Your task to perform on an android device: Search for Italian restaurants on Maps Image 0: 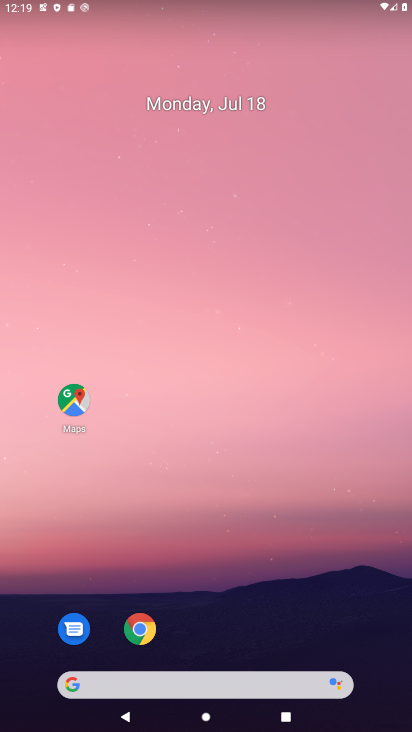
Step 0: drag from (221, 654) to (232, 77)
Your task to perform on an android device: Search for Italian restaurants on Maps Image 1: 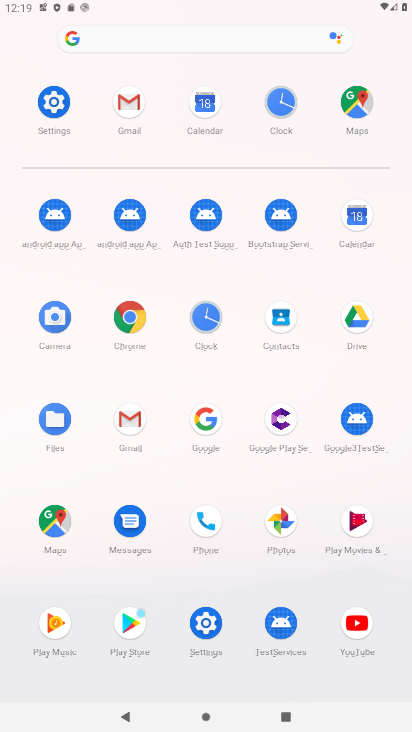
Step 1: click (55, 518)
Your task to perform on an android device: Search for Italian restaurants on Maps Image 2: 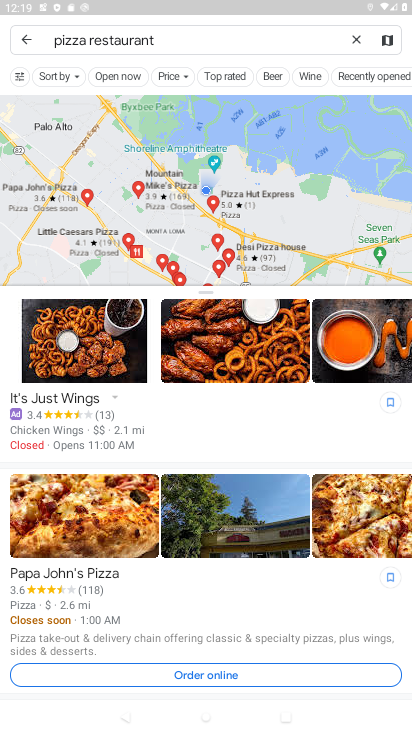
Step 2: click (356, 40)
Your task to perform on an android device: Search for Italian restaurants on Maps Image 3: 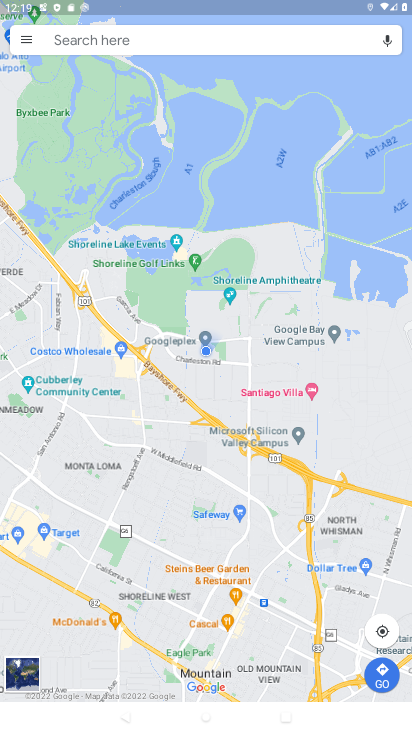
Step 3: type "italian restaurant"
Your task to perform on an android device: Search for Italian restaurants on Maps Image 4: 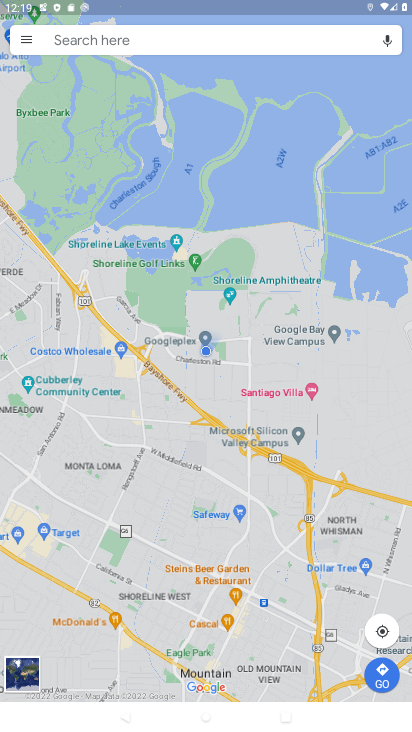
Step 4: click (72, 42)
Your task to perform on an android device: Search for Italian restaurants on Maps Image 5: 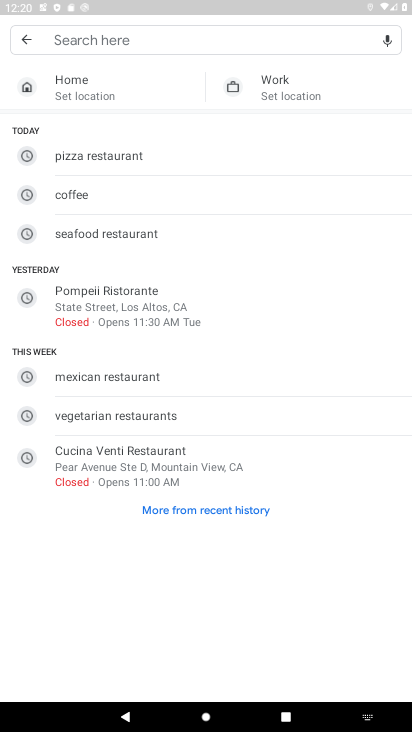
Step 5: type "italian restaurant"
Your task to perform on an android device: Search for Italian restaurants on Maps Image 6: 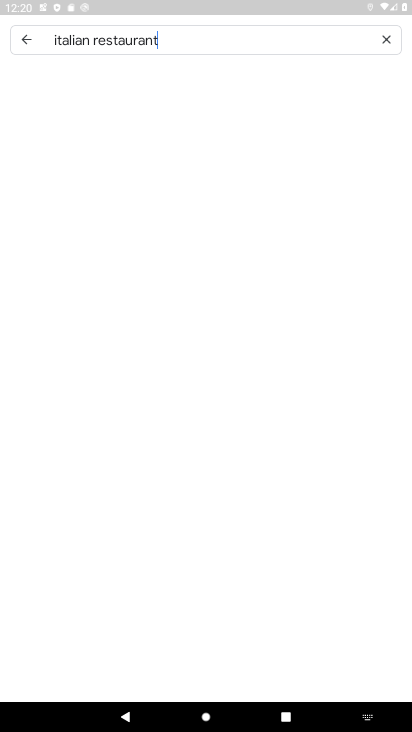
Step 6: type ""
Your task to perform on an android device: Search for Italian restaurants on Maps Image 7: 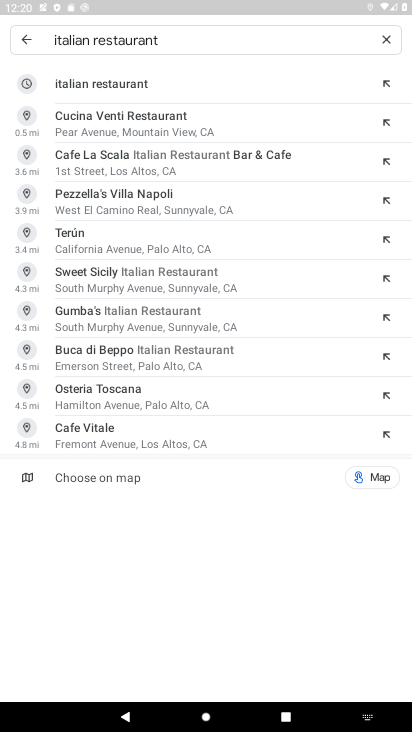
Step 7: click (169, 86)
Your task to perform on an android device: Search for Italian restaurants on Maps Image 8: 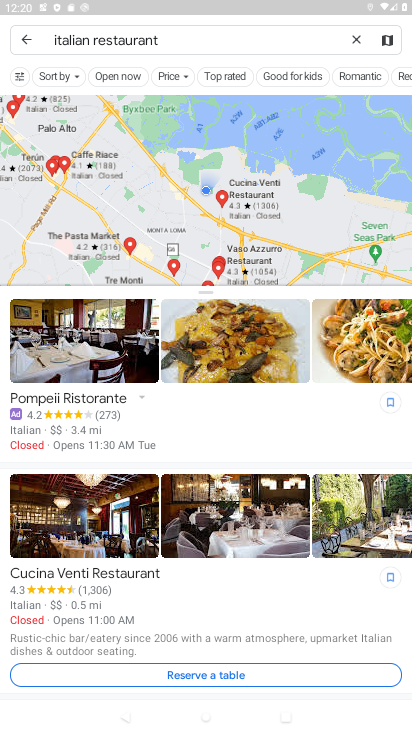
Step 8: task complete